Your task to perform on an android device: turn on wifi Image 0: 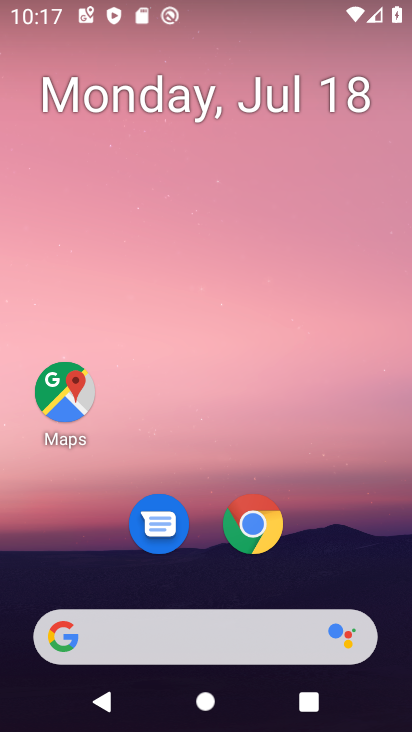
Step 0: drag from (336, 499) to (333, 29)
Your task to perform on an android device: turn on wifi Image 1: 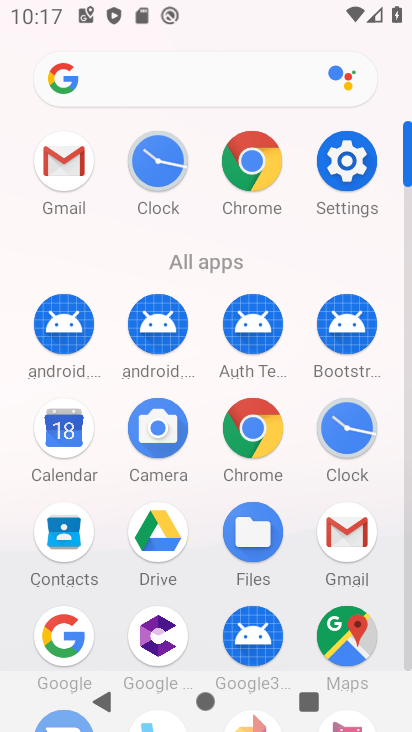
Step 1: click (339, 159)
Your task to perform on an android device: turn on wifi Image 2: 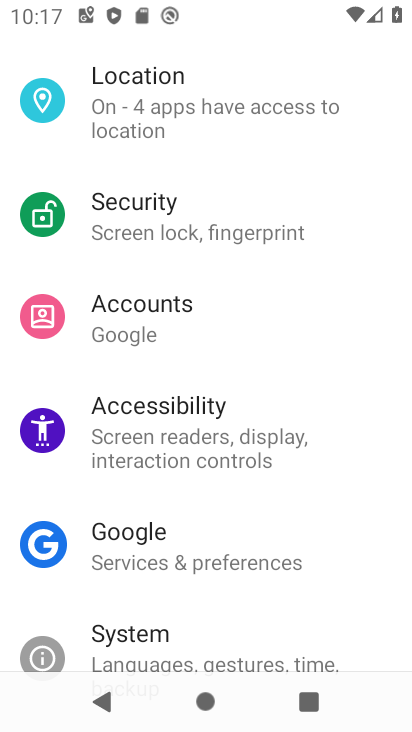
Step 2: drag from (218, 155) to (249, 605)
Your task to perform on an android device: turn on wifi Image 3: 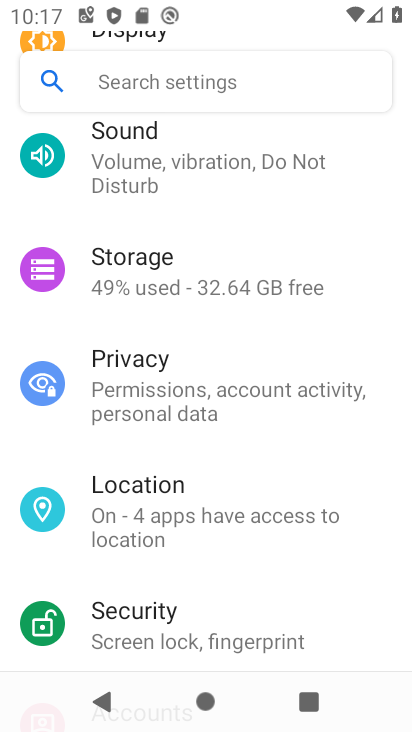
Step 3: drag from (258, 224) to (258, 582)
Your task to perform on an android device: turn on wifi Image 4: 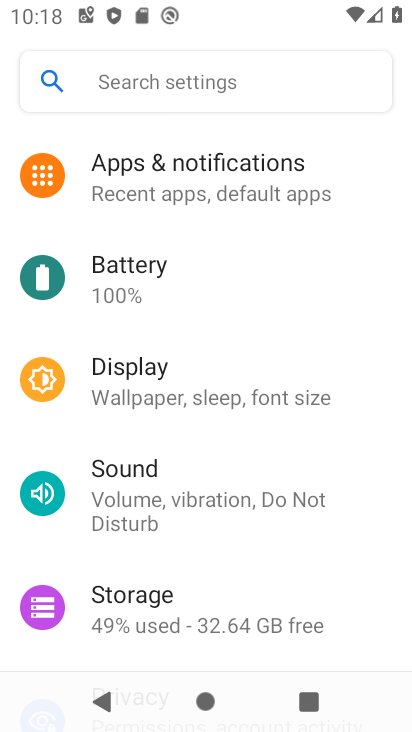
Step 4: drag from (218, 231) to (224, 580)
Your task to perform on an android device: turn on wifi Image 5: 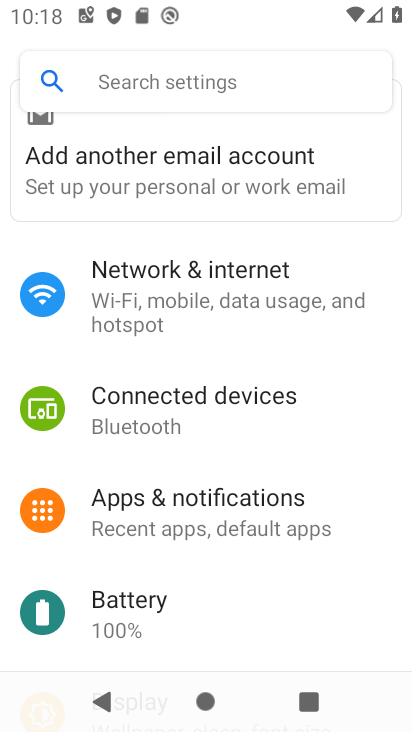
Step 5: click (227, 289)
Your task to perform on an android device: turn on wifi Image 6: 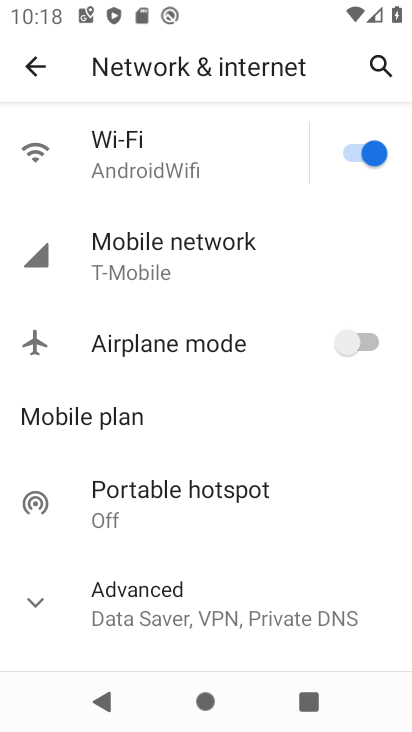
Step 6: task complete